Your task to perform on an android device: turn off priority inbox in the gmail app Image 0: 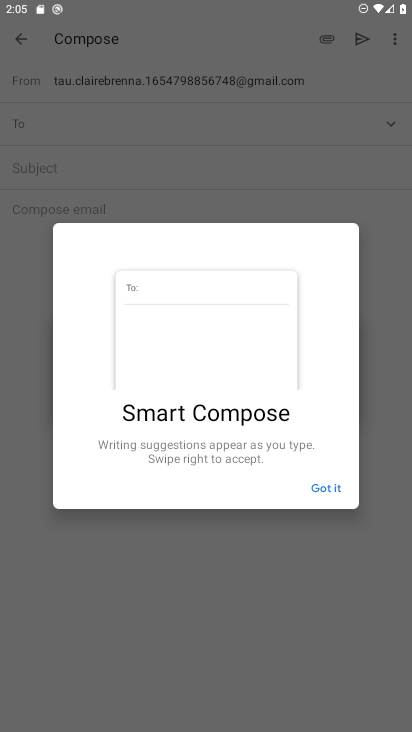
Step 0: press home button
Your task to perform on an android device: turn off priority inbox in the gmail app Image 1: 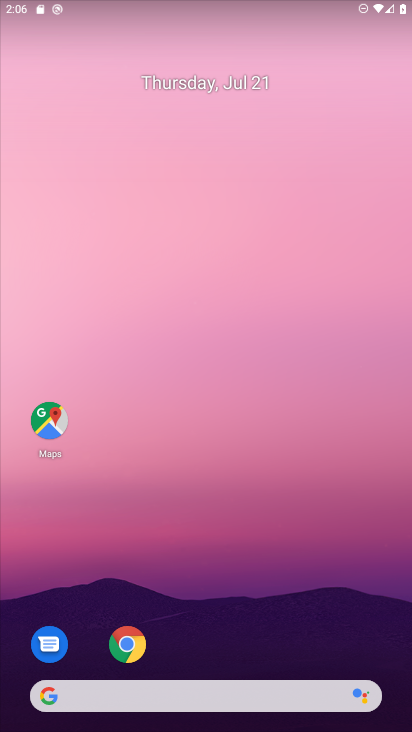
Step 1: drag from (243, 617) to (223, 235)
Your task to perform on an android device: turn off priority inbox in the gmail app Image 2: 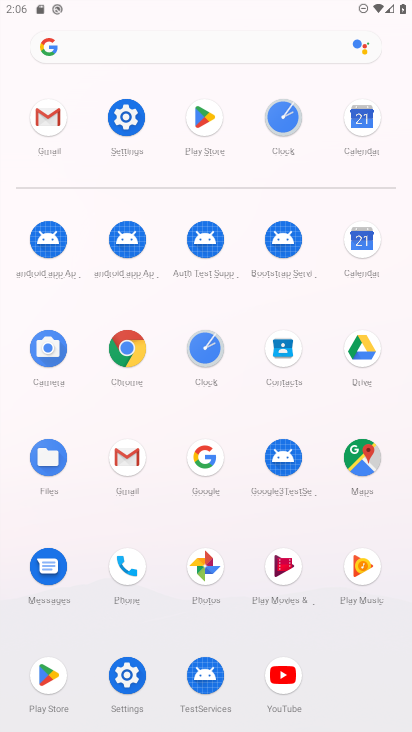
Step 2: click (58, 122)
Your task to perform on an android device: turn off priority inbox in the gmail app Image 3: 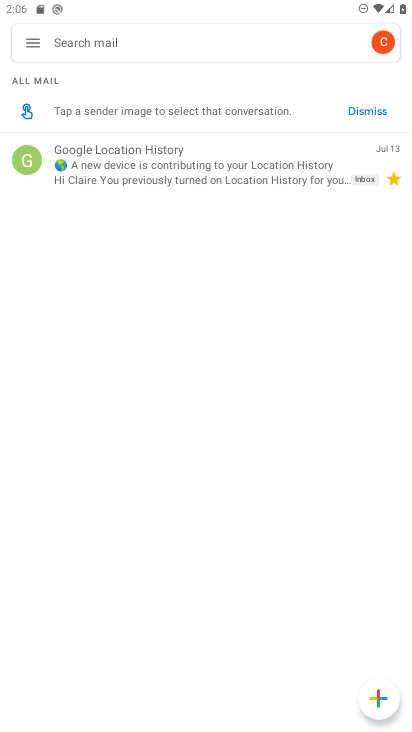
Step 3: click (28, 54)
Your task to perform on an android device: turn off priority inbox in the gmail app Image 4: 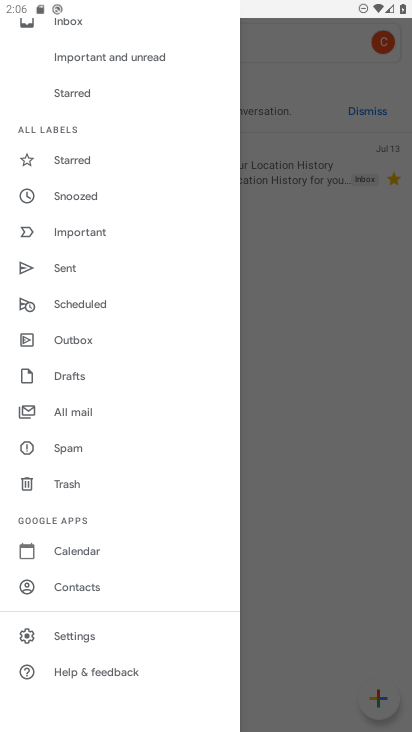
Step 4: click (48, 626)
Your task to perform on an android device: turn off priority inbox in the gmail app Image 5: 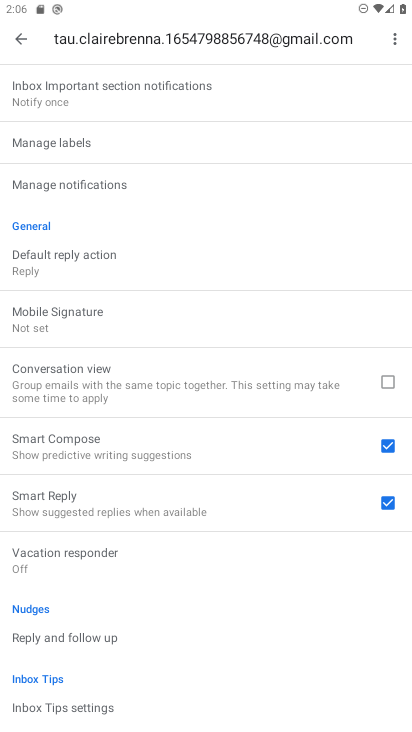
Step 5: drag from (73, 311) to (95, 631)
Your task to perform on an android device: turn off priority inbox in the gmail app Image 6: 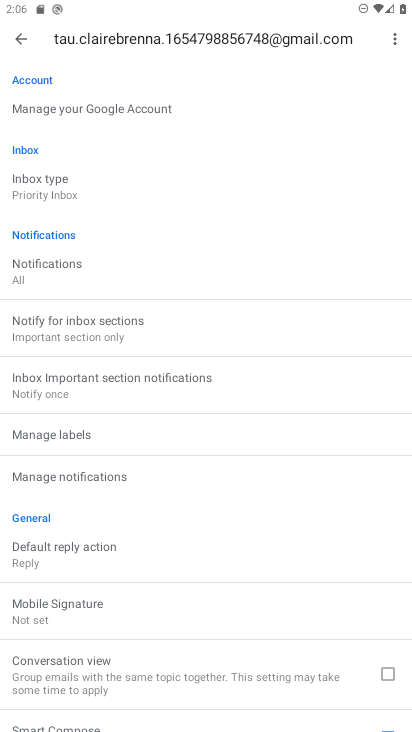
Step 6: click (50, 198)
Your task to perform on an android device: turn off priority inbox in the gmail app Image 7: 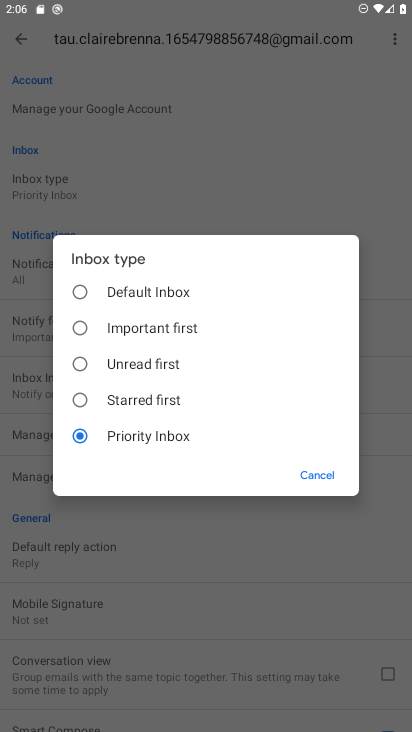
Step 7: click (103, 291)
Your task to perform on an android device: turn off priority inbox in the gmail app Image 8: 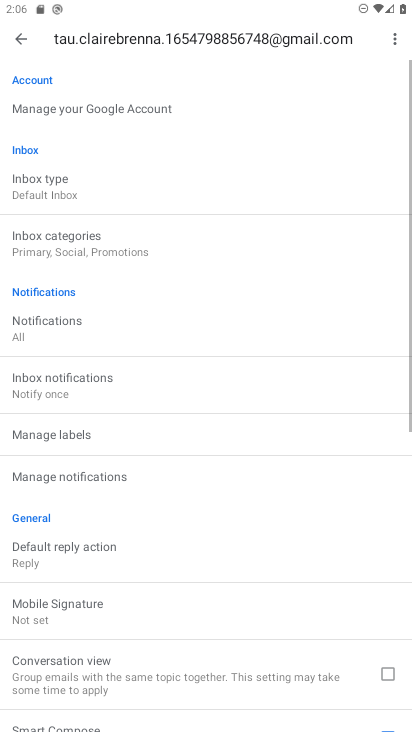
Step 8: task complete